Your task to perform on an android device: turn smart compose on in the gmail app Image 0: 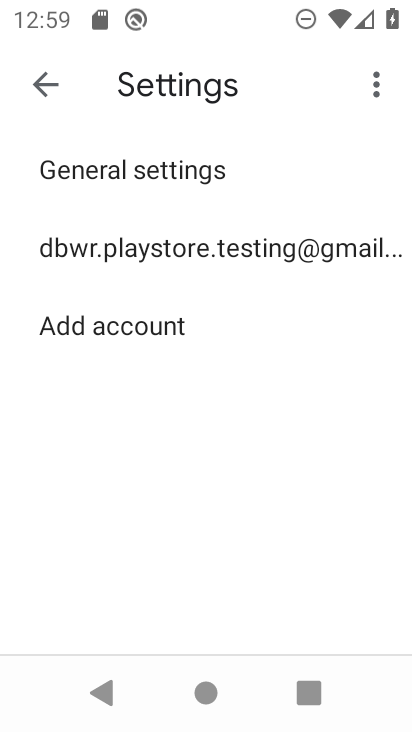
Step 0: press home button
Your task to perform on an android device: turn smart compose on in the gmail app Image 1: 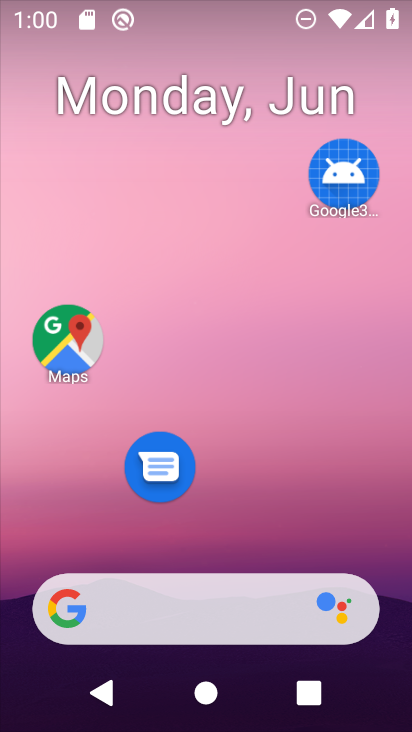
Step 1: drag from (283, 179) to (322, 12)
Your task to perform on an android device: turn smart compose on in the gmail app Image 2: 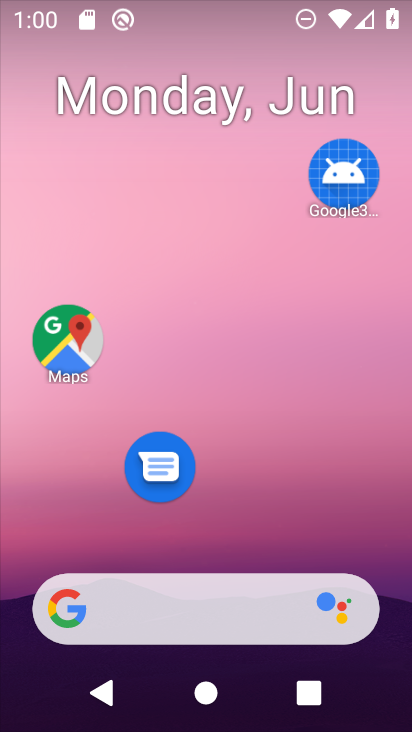
Step 2: drag from (271, 693) to (276, 276)
Your task to perform on an android device: turn smart compose on in the gmail app Image 3: 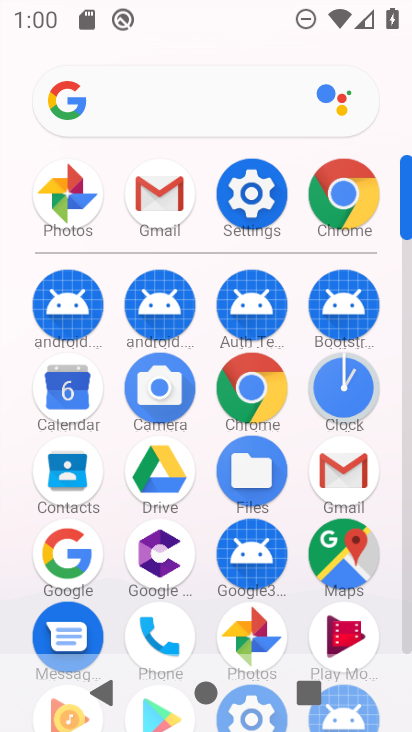
Step 3: click (183, 225)
Your task to perform on an android device: turn smart compose on in the gmail app Image 4: 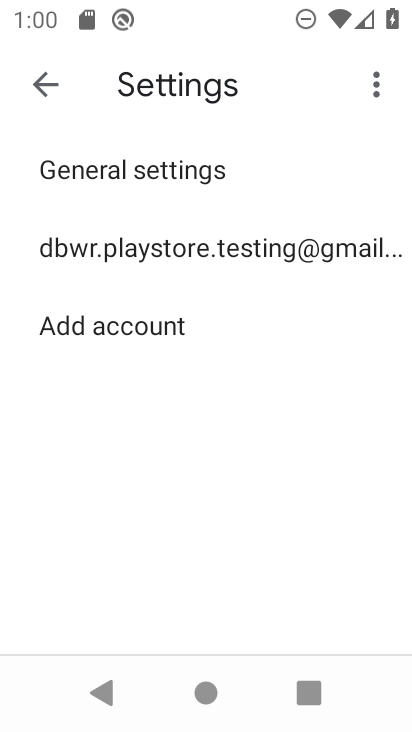
Step 4: click (219, 268)
Your task to perform on an android device: turn smart compose on in the gmail app Image 5: 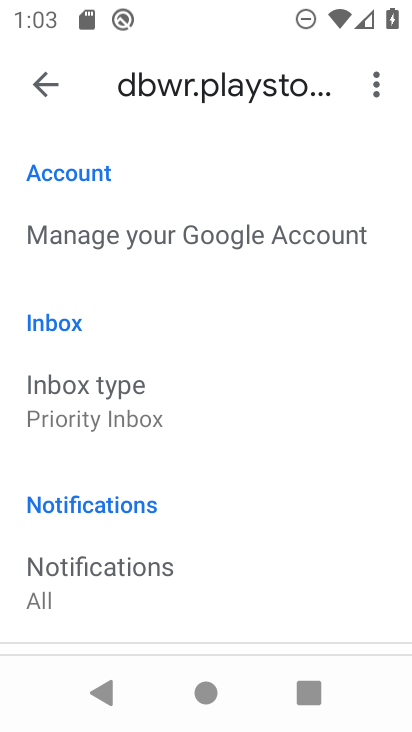
Step 5: task complete